Your task to perform on an android device: Open Chrome and go to the settings page Image 0: 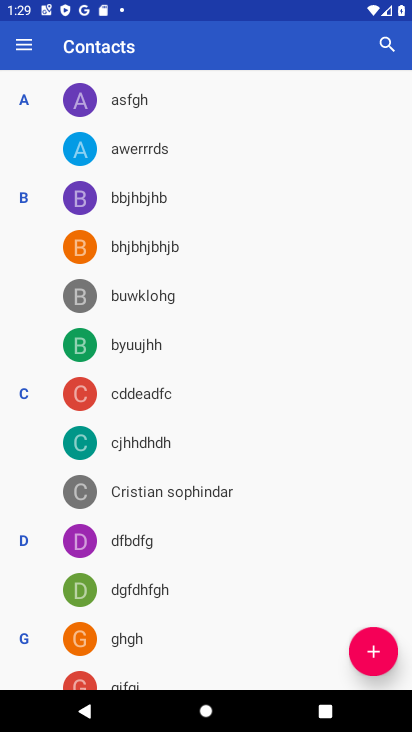
Step 0: press home button
Your task to perform on an android device: Open Chrome and go to the settings page Image 1: 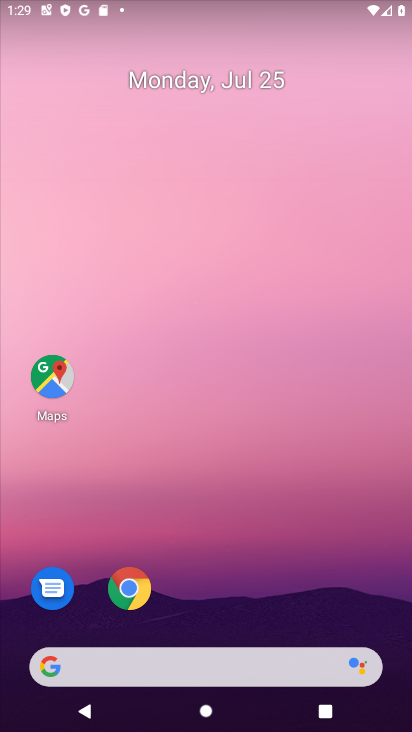
Step 1: click (131, 583)
Your task to perform on an android device: Open Chrome and go to the settings page Image 2: 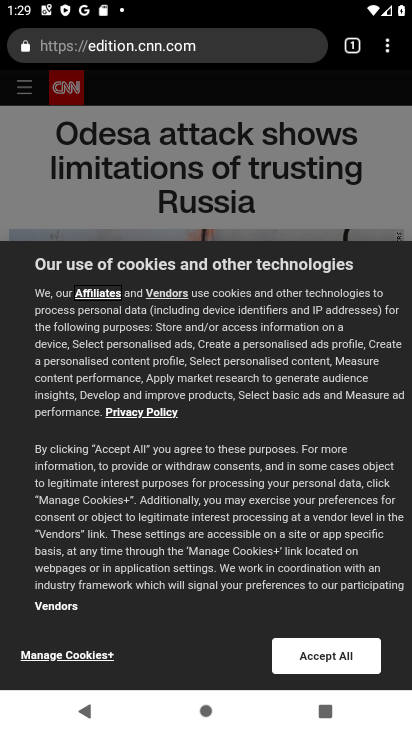
Step 2: click (389, 43)
Your task to perform on an android device: Open Chrome and go to the settings page Image 3: 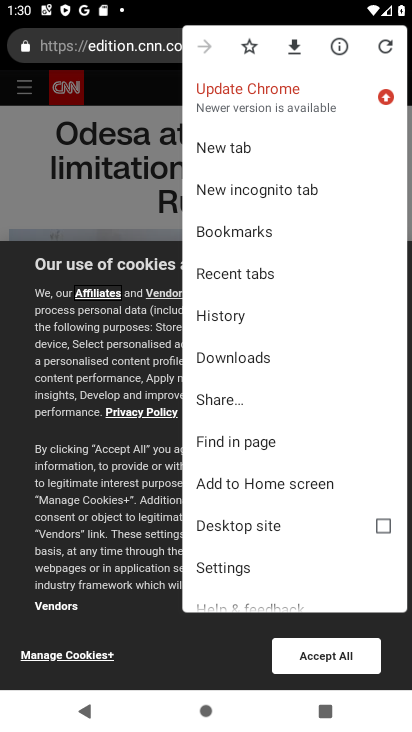
Step 3: click (231, 571)
Your task to perform on an android device: Open Chrome and go to the settings page Image 4: 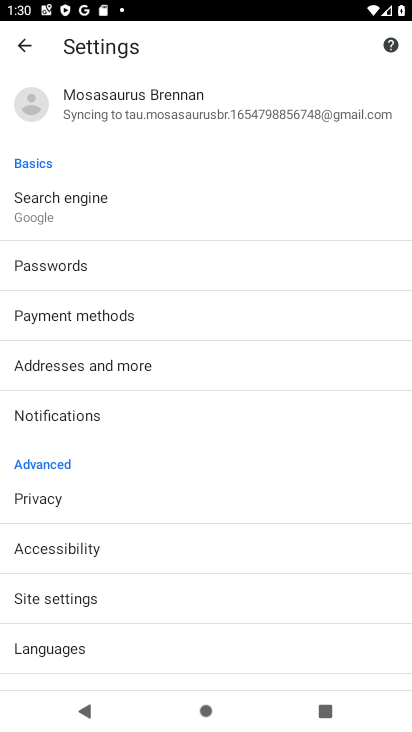
Step 4: task complete